Your task to perform on an android device: When is my next meeting? Image 0: 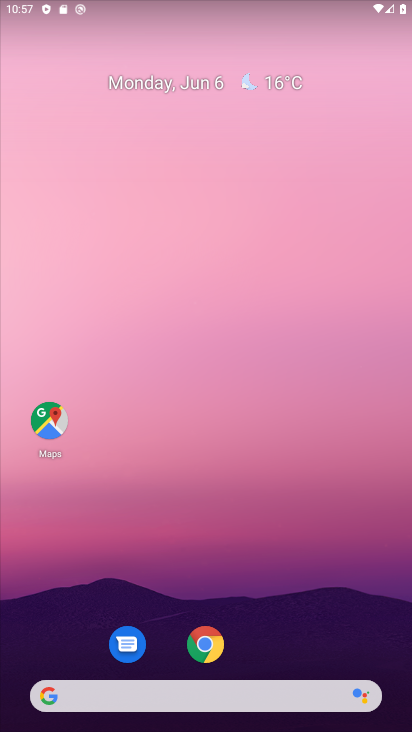
Step 0: drag from (294, 621) to (262, 223)
Your task to perform on an android device: When is my next meeting? Image 1: 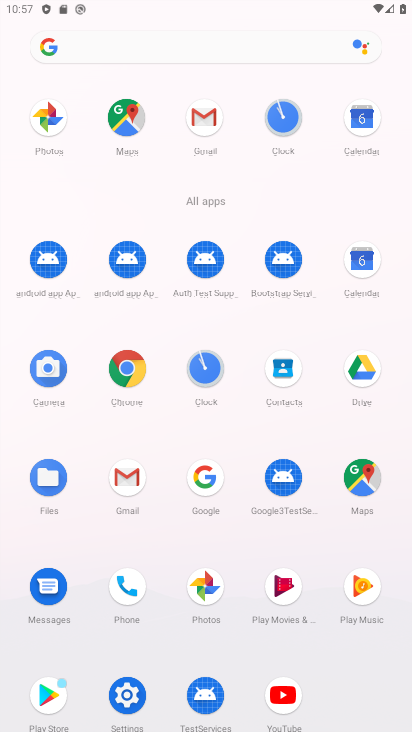
Step 1: click (360, 265)
Your task to perform on an android device: When is my next meeting? Image 2: 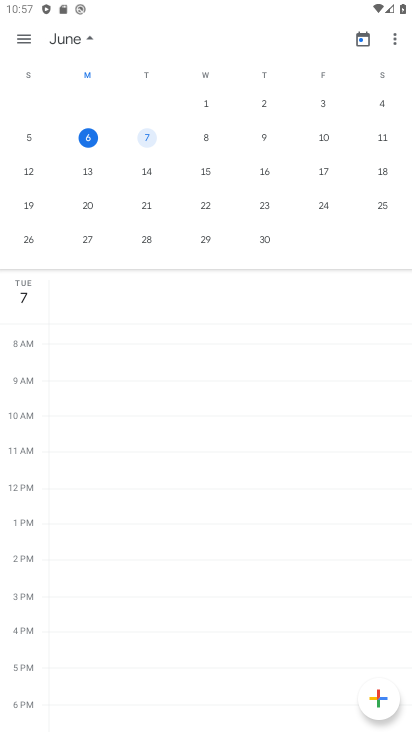
Step 2: click (32, 35)
Your task to perform on an android device: When is my next meeting? Image 3: 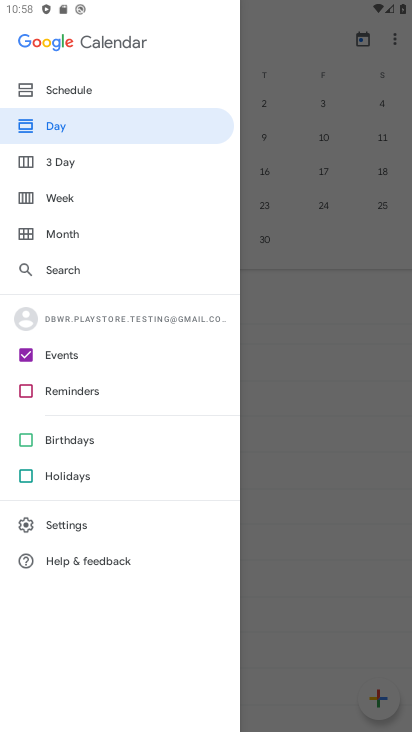
Step 3: click (66, 82)
Your task to perform on an android device: When is my next meeting? Image 4: 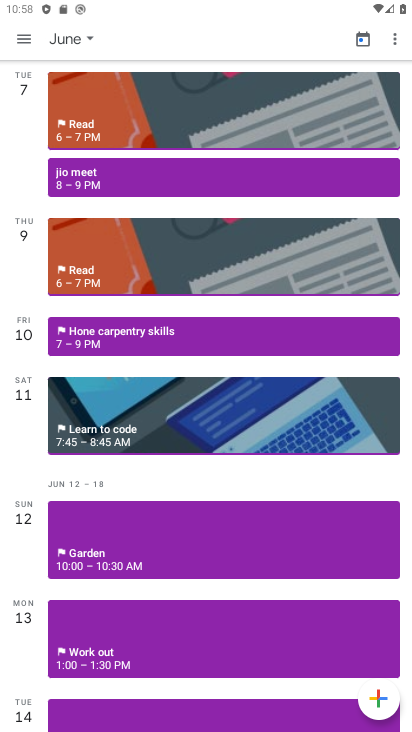
Step 4: task complete